Your task to perform on an android device: Open the calendar app, open the side menu, and click the "Day" option Image 0: 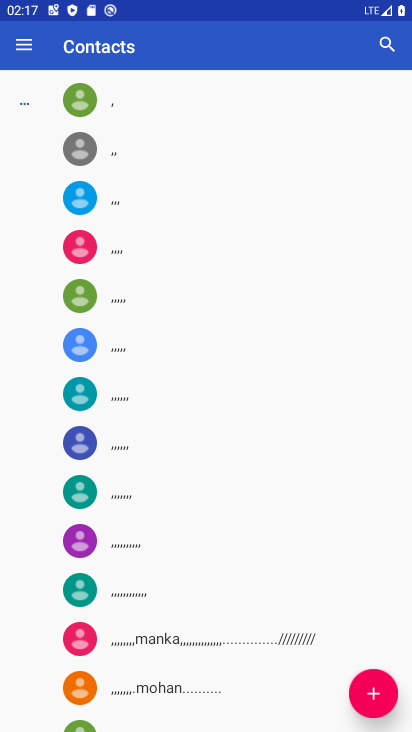
Step 0: press home button
Your task to perform on an android device: Open the calendar app, open the side menu, and click the "Day" option Image 1: 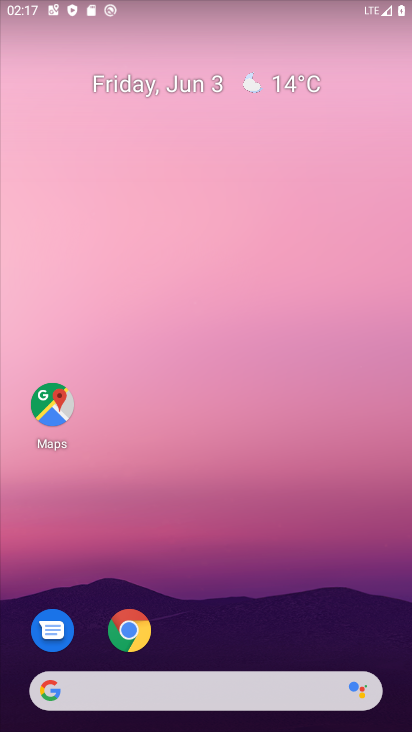
Step 1: drag from (395, 684) to (310, 97)
Your task to perform on an android device: Open the calendar app, open the side menu, and click the "Day" option Image 2: 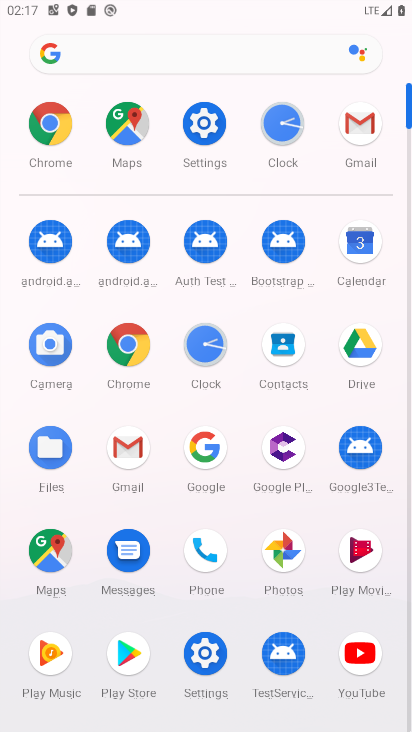
Step 2: click (361, 254)
Your task to perform on an android device: Open the calendar app, open the side menu, and click the "Day" option Image 3: 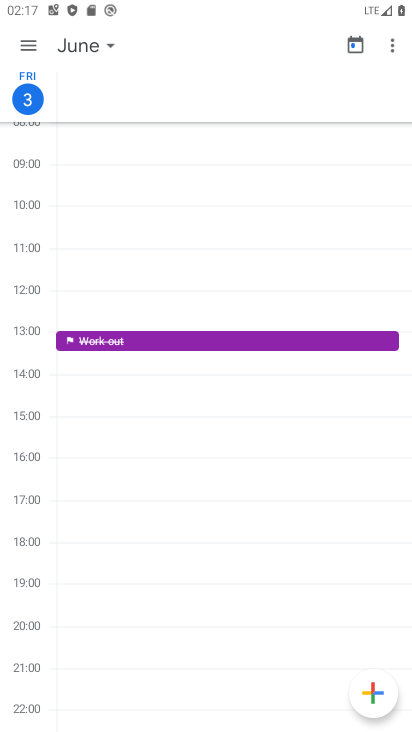
Step 3: click (29, 45)
Your task to perform on an android device: Open the calendar app, open the side menu, and click the "Day" option Image 4: 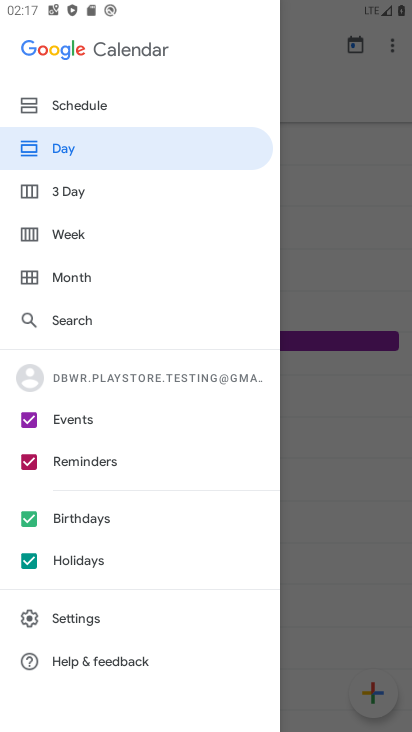
Step 4: click (72, 155)
Your task to perform on an android device: Open the calendar app, open the side menu, and click the "Day" option Image 5: 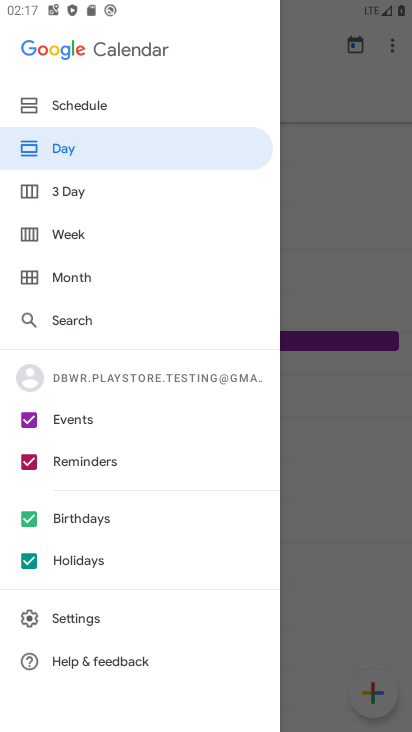
Step 5: click (68, 149)
Your task to perform on an android device: Open the calendar app, open the side menu, and click the "Day" option Image 6: 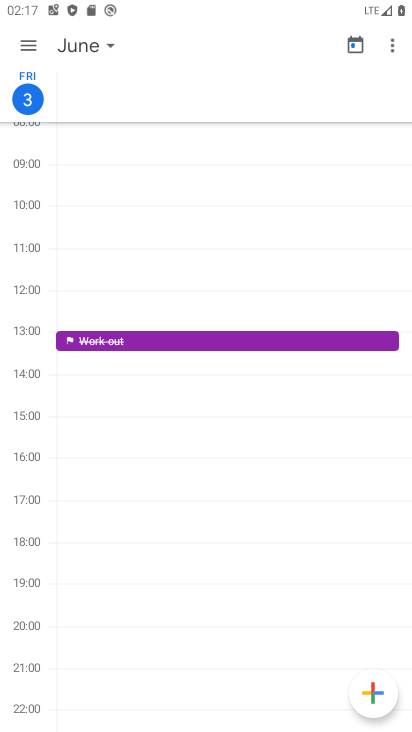
Step 6: task complete